Your task to perform on an android device: turn off location history Image 0: 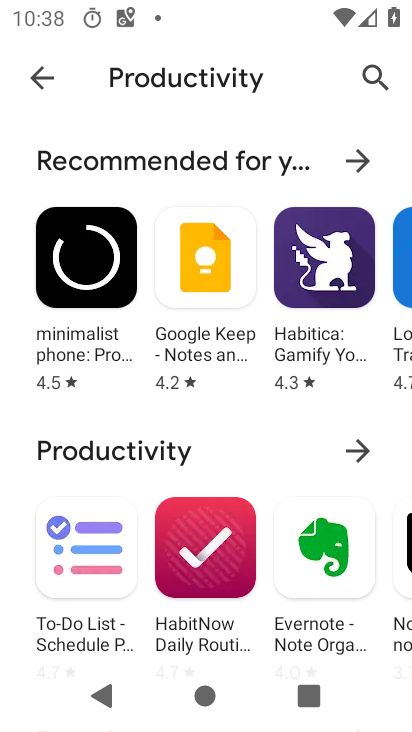
Step 0: press home button
Your task to perform on an android device: turn off location history Image 1: 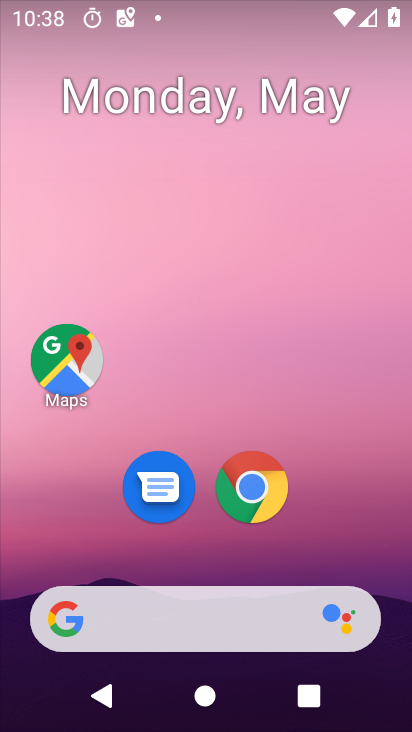
Step 1: drag from (300, 532) to (303, 130)
Your task to perform on an android device: turn off location history Image 2: 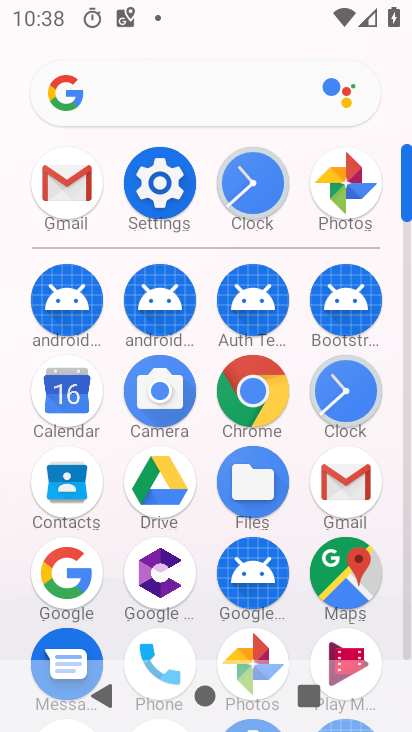
Step 2: click (161, 189)
Your task to perform on an android device: turn off location history Image 3: 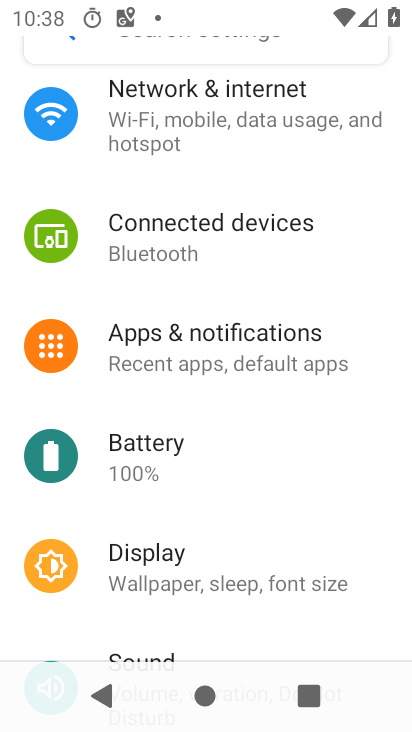
Step 3: drag from (179, 510) to (195, 422)
Your task to perform on an android device: turn off location history Image 4: 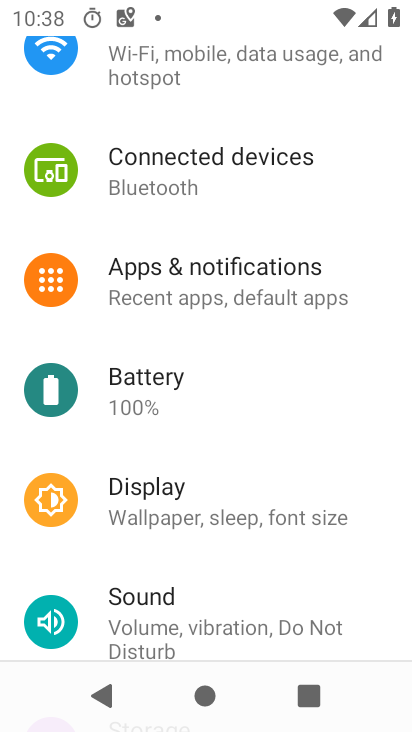
Step 4: drag from (218, 572) to (260, 447)
Your task to perform on an android device: turn off location history Image 5: 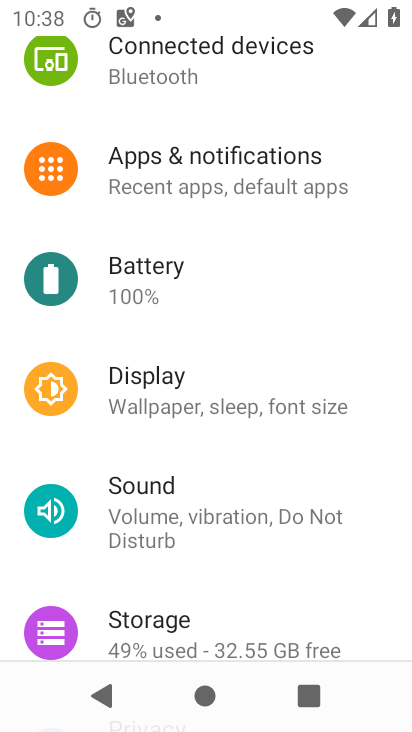
Step 5: drag from (242, 538) to (252, 451)
Your task to perform on an android device: turn off location history Image 6: 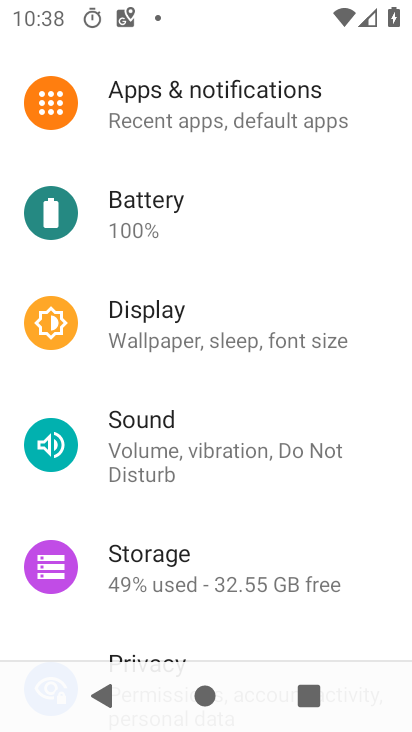
Step 6: drag from (251, 555) to (238, 454)
Your task to perform on an android device: turn off location history Image 7: 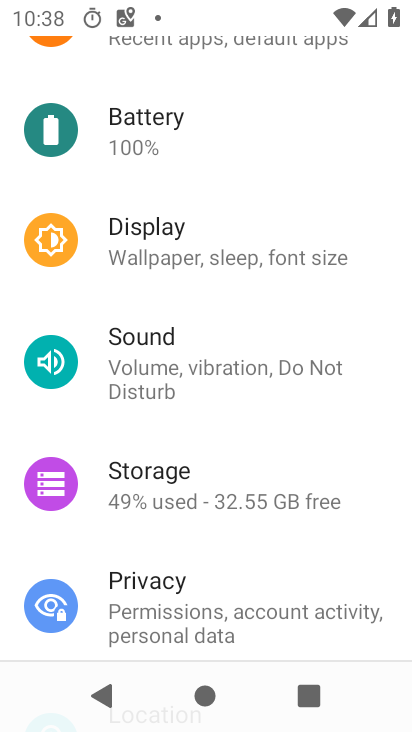
Step 7: drag from (251, 550) to (250, 411)
Your task to perform on an android device: turn off location history Image 8: 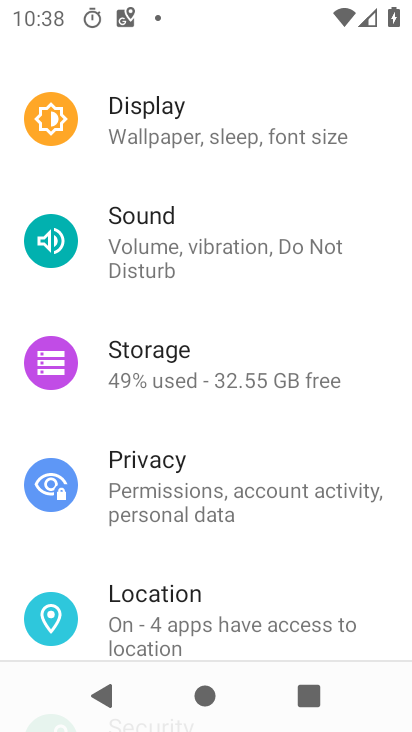
Step 8: click (163, 588)
Your task to perform on an android device: turn off location history Image 9: 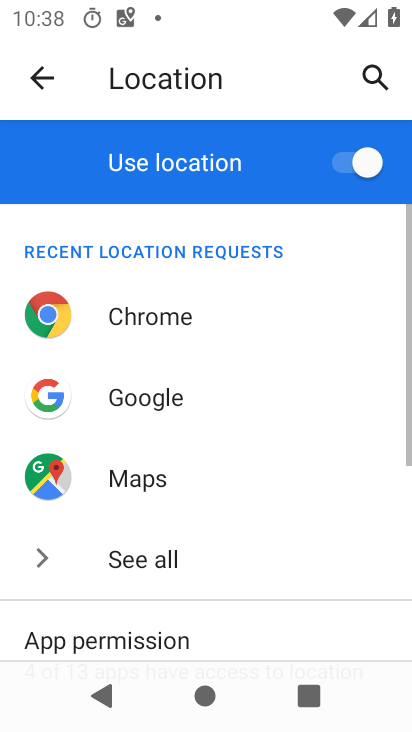
Step 9: drag from (185, 592) to (233, 298)
Your task to perform on an android device: turn off location history Image 10: 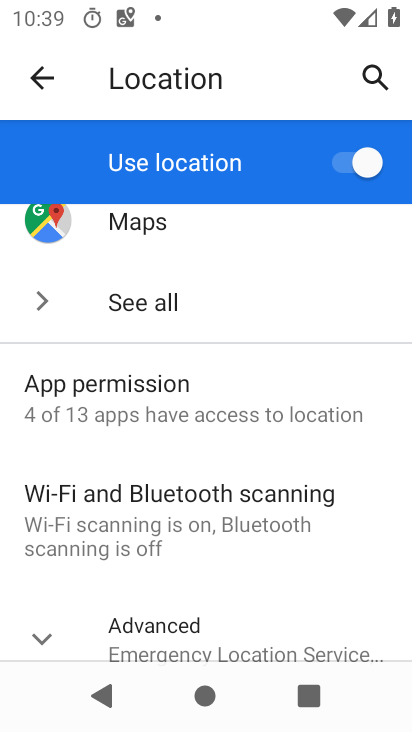
Step 10: click (149, 620)
Your task to perform on an android device: turn off location history Image 11: 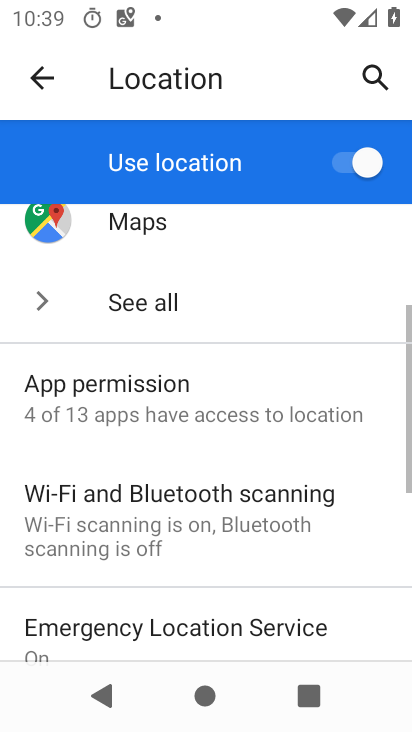
Step 11: drag from (149, 614) to (178, 413)
Your task to perform on an android device: turn off location history Image 12: 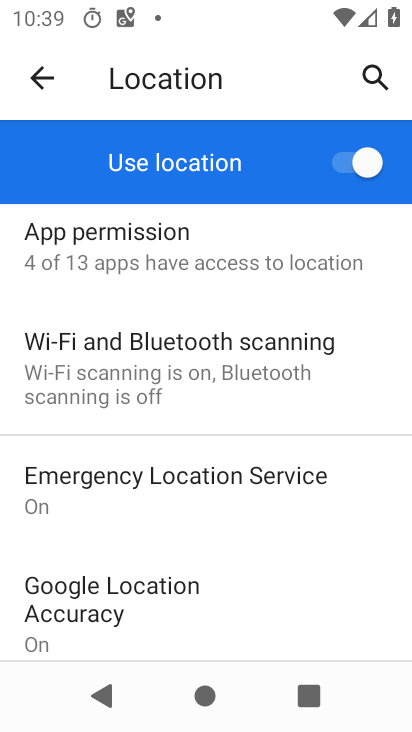
Step 12: drag from (162, 542) to (173, 358)
Your task to perform on an android device: turn off location history Image 13: 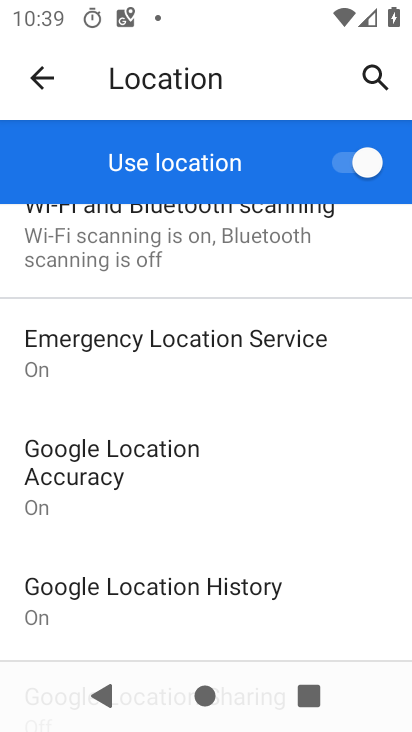
Step 13: click (141, 589)
Your task to perform on an android device: turn off location history Image 14: 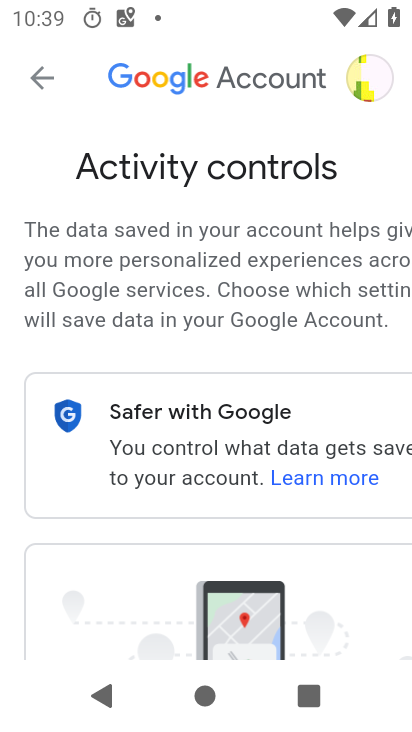
Step 14: drag from (201, 599) to (237, 257)
Your task to perform on an android device: turn off location history Image 15: 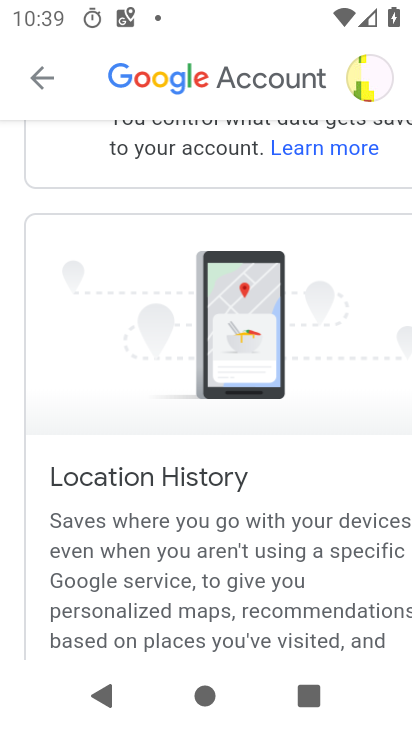
Step 15: drag from (247, 595) to (248, 222)
Your task to perform on an android device: turn off location history Image 16: 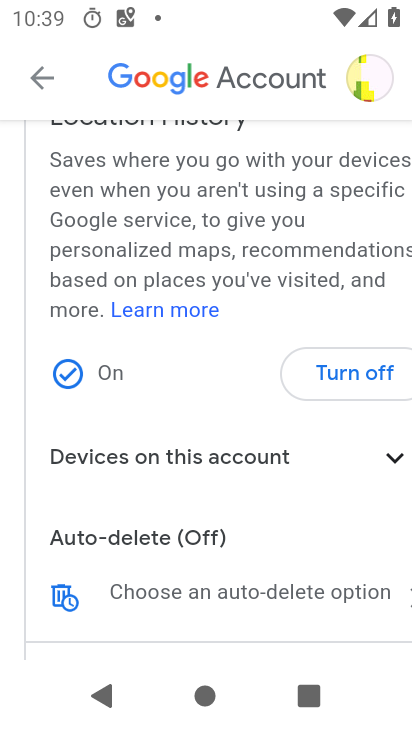
Step 16: click (355, 371)
Your task to perform on an android device: turn off location history Image 17: 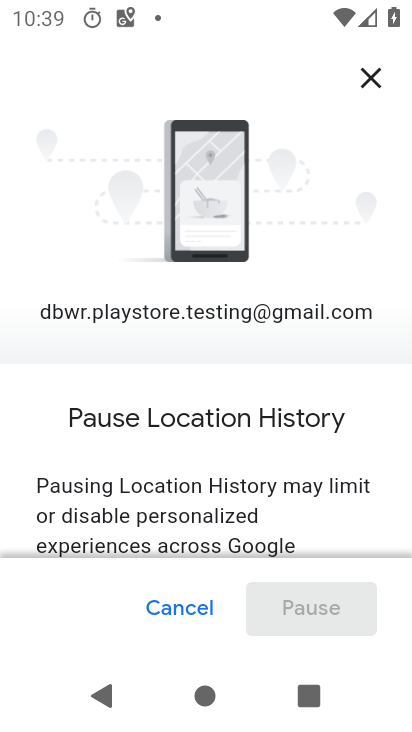
Step 17: drag from (335, 508) to (324, 238)
Your task to perform on an android device: turn off location history Image 18: 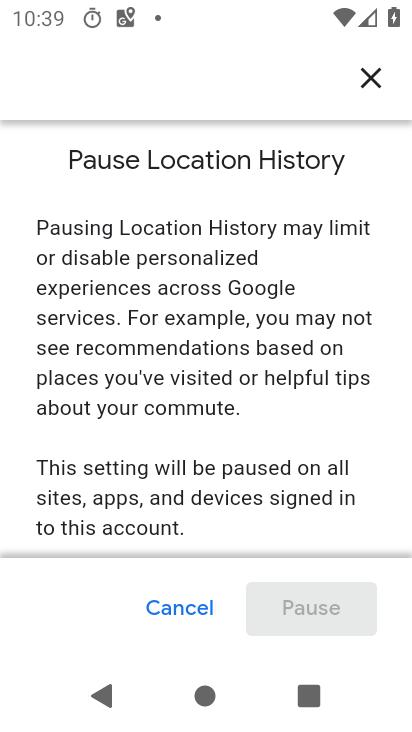
Step 18: drag from (306, 332) to (301, 146)
Your task to perform on an android device: turn off location history Image 19: 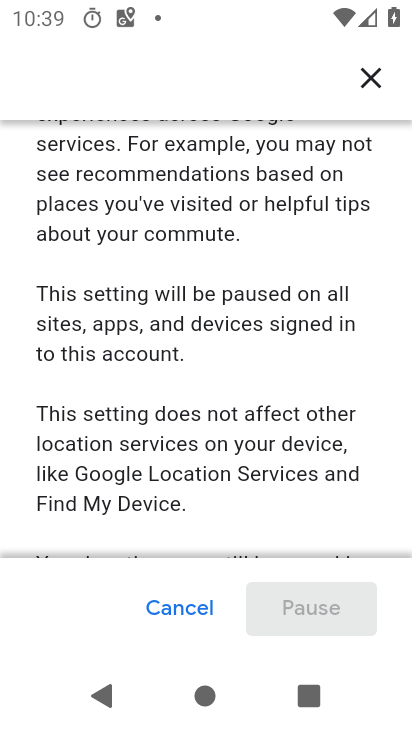
Step 19: drag from (297, 419) to (288, 201)
Your task to perform on an android device: turn off location history Image 20: 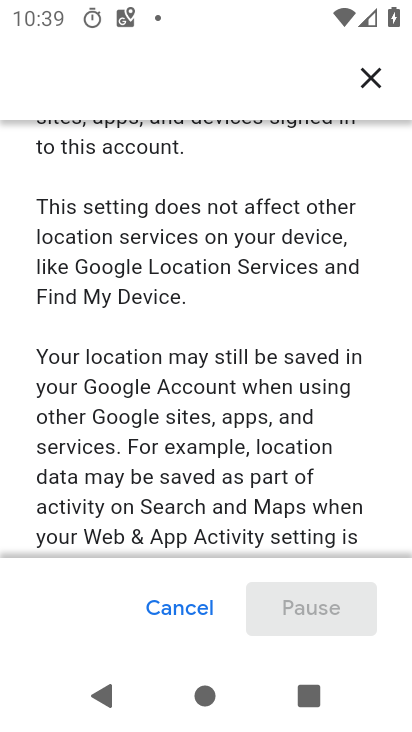
Step 20: drag from (243, 459) to (233, 232)
Your task to perform on an android device: turn off location history Image 21: 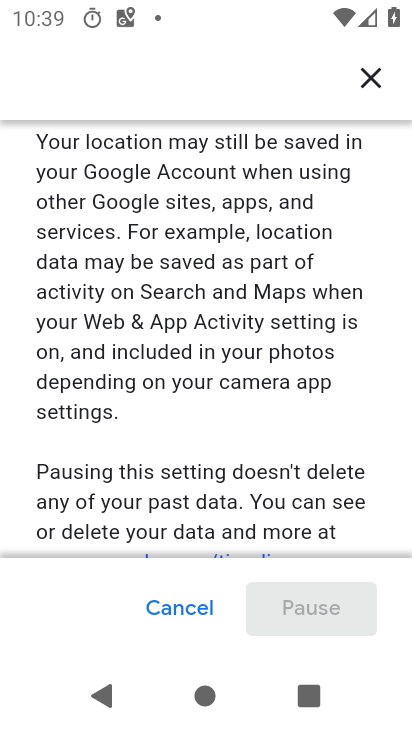
Step 21: drag from (242, 361) to (248, 187)
Your task to perform on an android device: turn off location history Image 22: 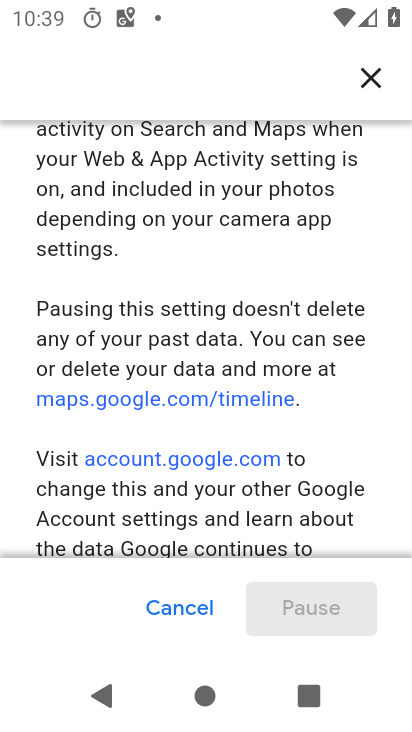
Step 22: drag from (269, 437) to (290, 236)
Your task to perform on an android device: turn off location history Image 23: 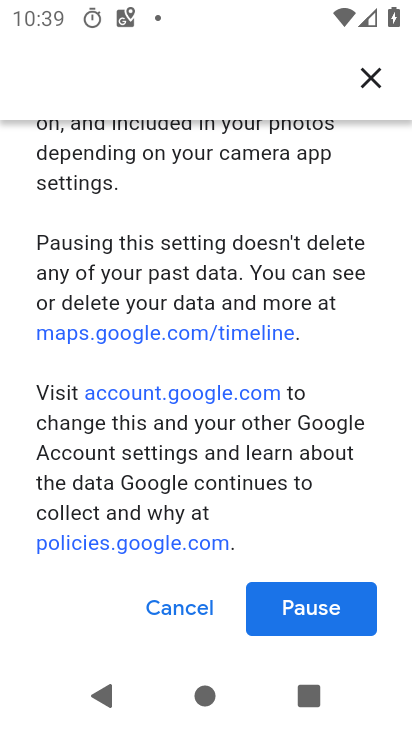
Step 23: click (279, 608)
Your task to perform on an android device: turn off location history Image 24: 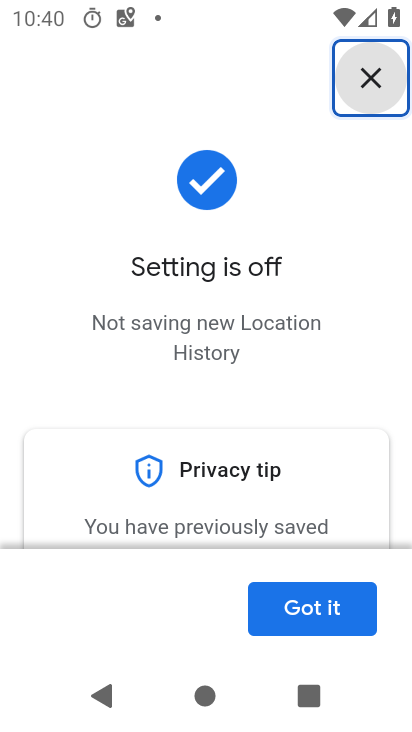
Step 24: task complete